Your task to perform on an android device: check data usage Image 0: 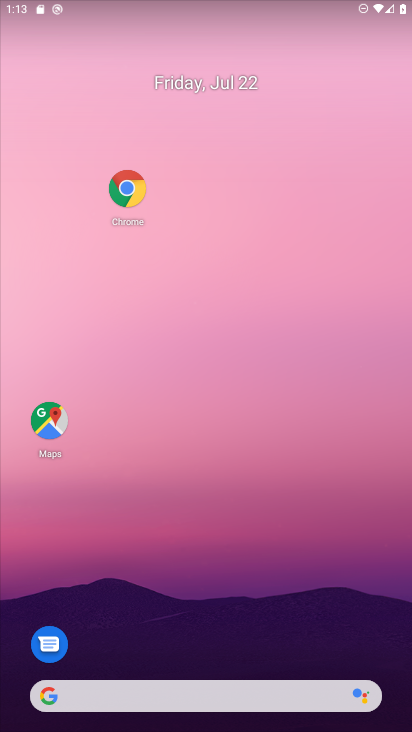
Step 0: drag from (97, 629) to (143, 207)
Your task to perform on an android device: check data usage Image 1: 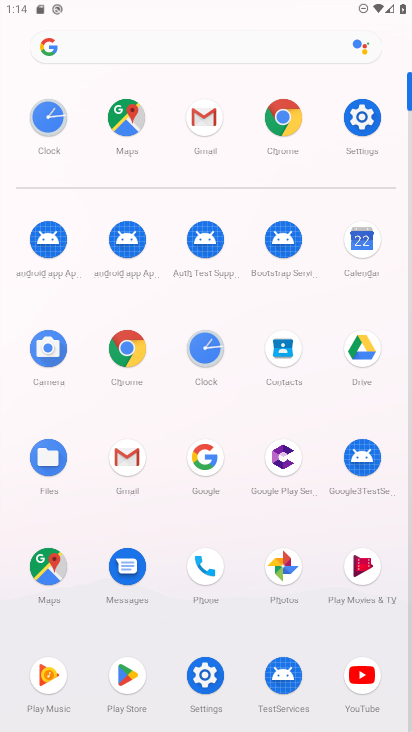
Step 1: click (201, 670)
Your task to perform on an android device: check data usage Image 2: 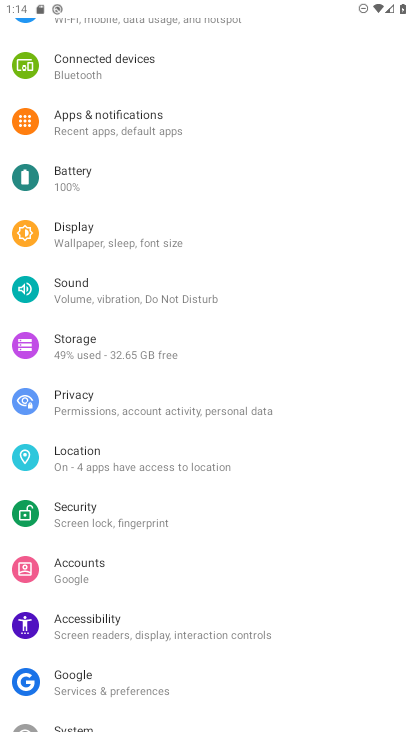
Step 2: drag from (112, 93) to (139, 731)
Your task to perform on an android device: check data usage Image 3: 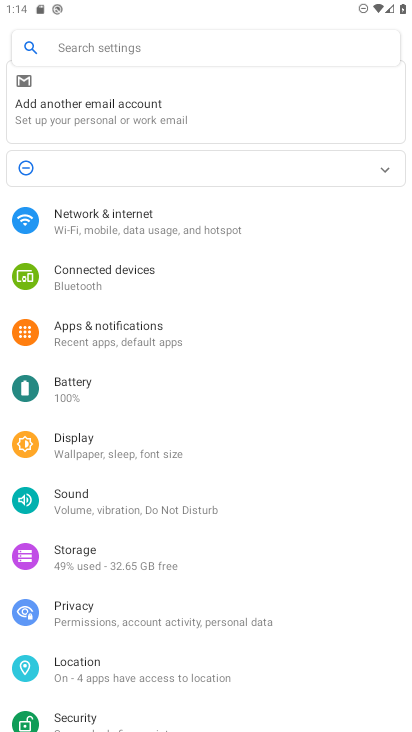
Step 3: click (153, 338)
Your task to perform on an android device: check data usage Image 4: 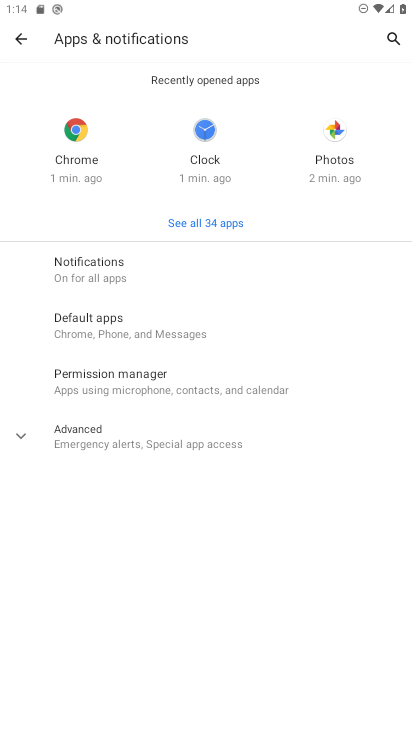
Step 4: click (156, 455)
Your task to perform on an android device: check data usage Image 5: 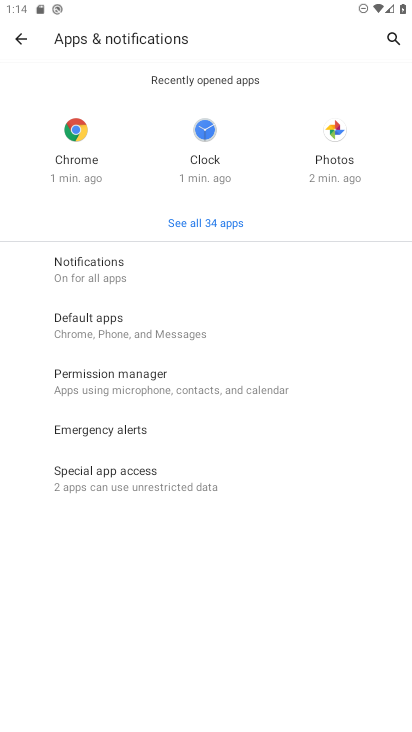
Step 5: click (271, 659)
Your task to perform on an android device: check data usage Image 6: 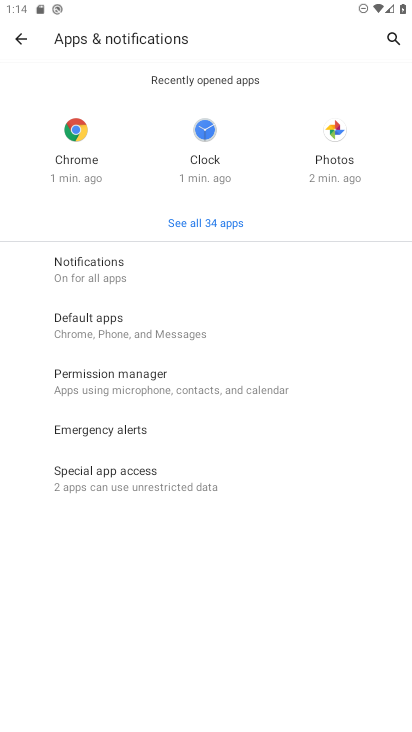
Step 6: drag from (98, 2) to (106, 554)
Your task to perform on an android device: check data usage Image 7: 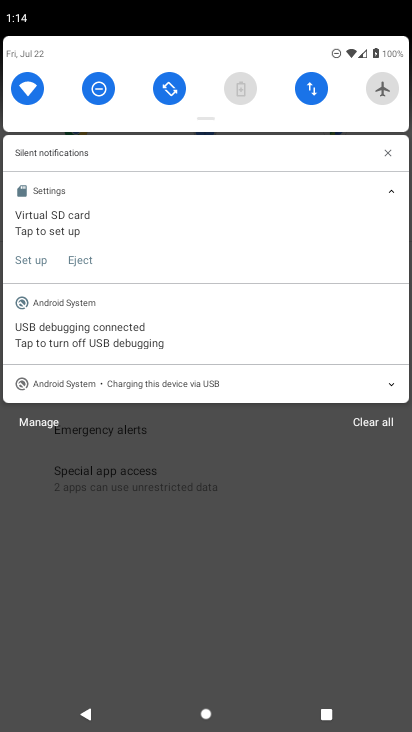
Step 7: click (313, 96)
Your task to perform on an android device: check data usage Image 8: 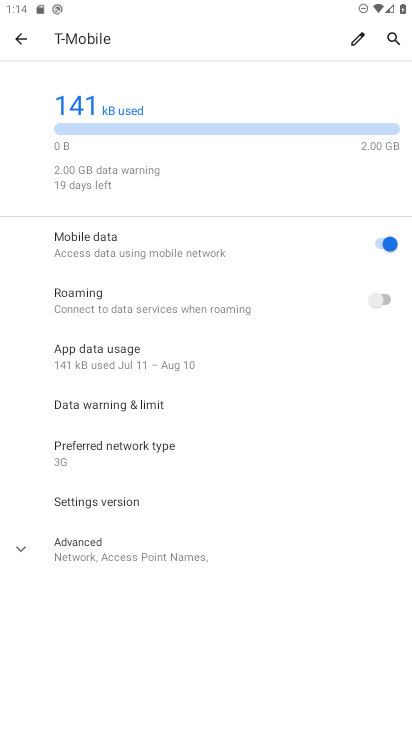
Step 8: task complete